Your task to perform on an android device: create a new album in the google photos Image 0: 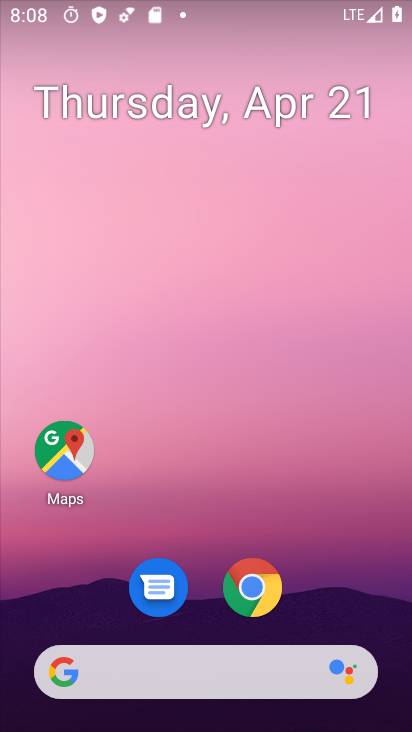
Step 0: click (70, 442)
Your task to perform on an android device: create a new album in the google photos Image 1: 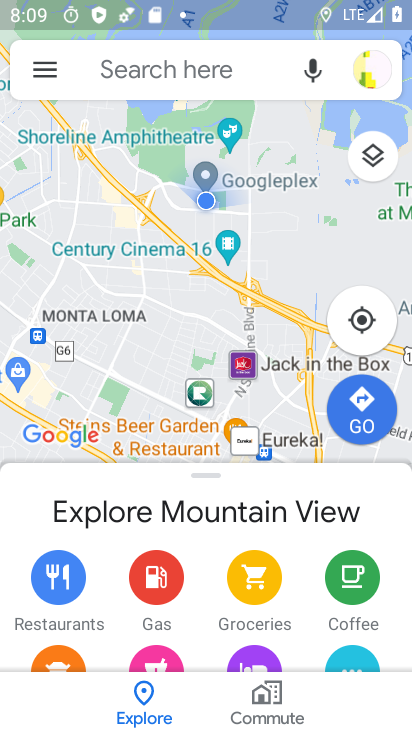
Step 1: press home button
Your task to perform on an android device: create a new album in the google photos Image 2: 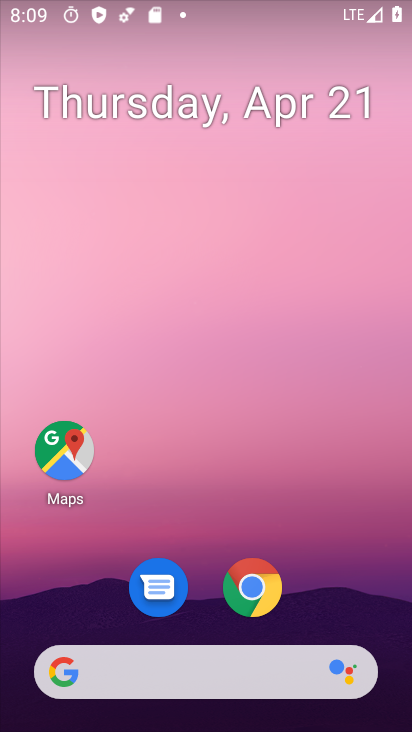
Step 2: click (382, 183)
Your task to perform on an android device: create a new album in the google photos Image 3: 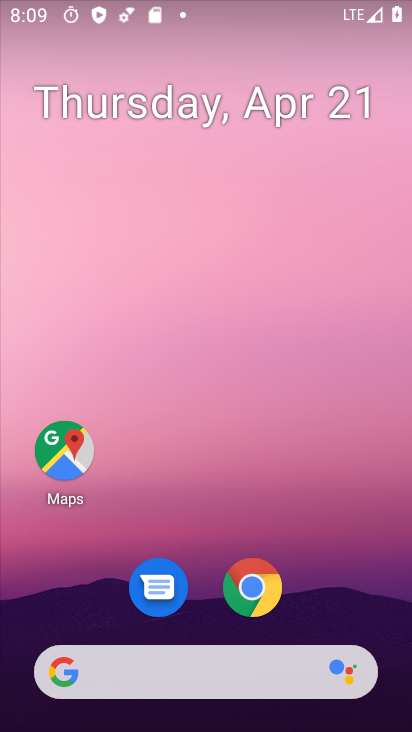
Step 3: drag from (389, 501) to (389, 212)
Your task to perform on an android device: create a new album in the google photos Image 4: 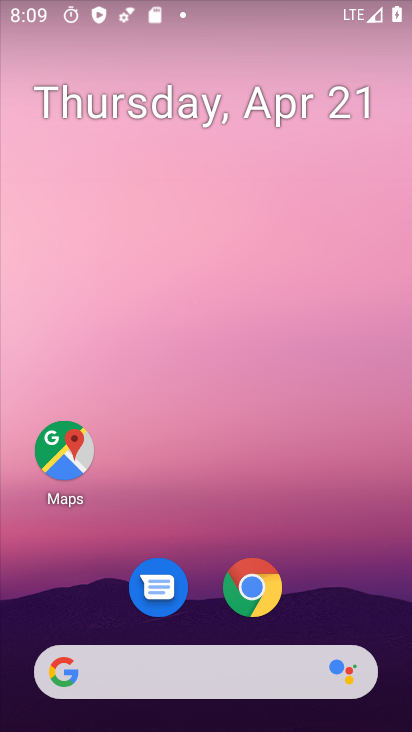
Step 4: drag from (393, 550) to (350, 196)
Your task to perform on an android device: create a new album in the google photos Image 5: 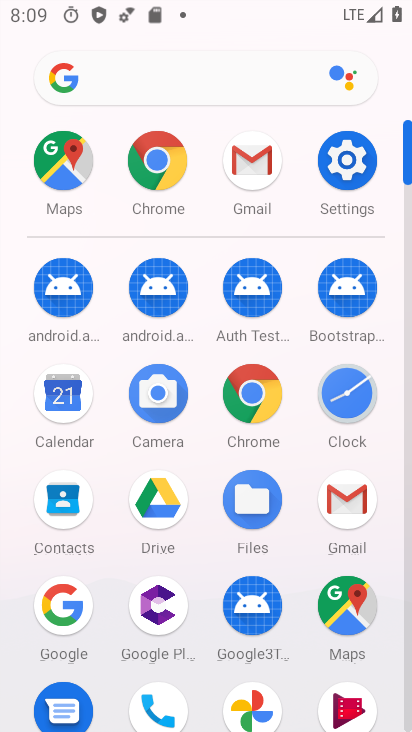
Step 5: click (244, 697)
Your task to perform on an android device: create a new album in the google photos Image 6: 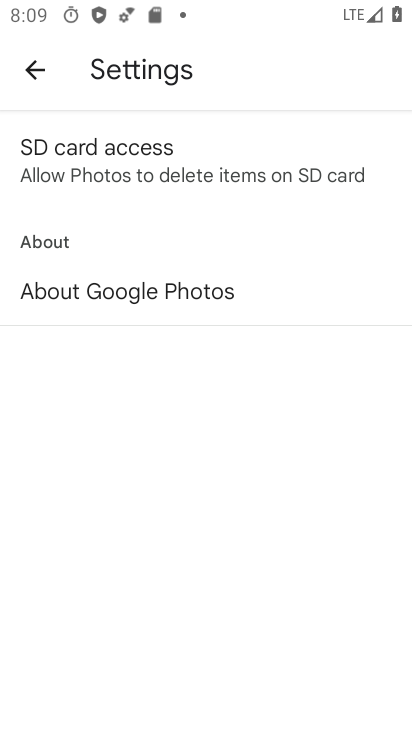
Step 6: click (36, 67)
Your task to perform on an android device: create a new album in the google photos Image 7: 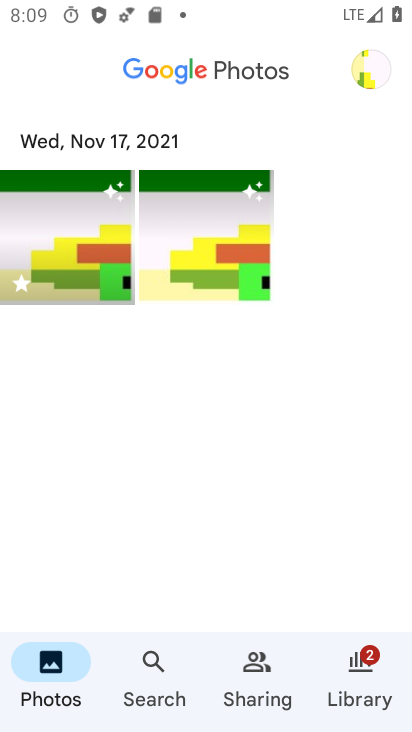
Step 7: click (369, 665)
Your task to perform on an android device: create a new album in the google photos Image 8: 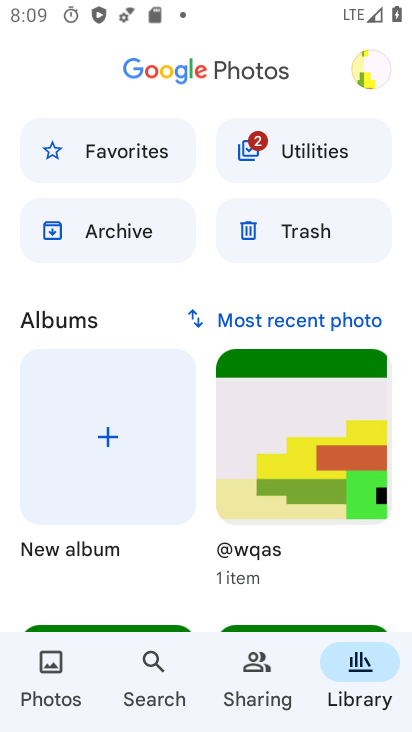
Step 8: click (99, 431)
Your task to perform on an android device: create a new album in the google photos Image 9: 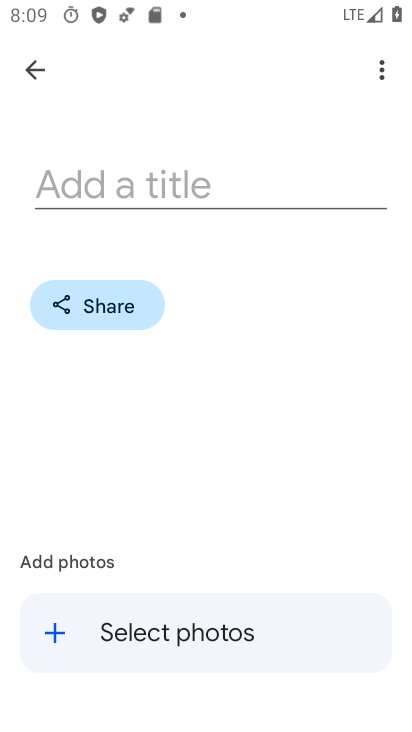
Step 9: click (128, 167)
Your task to perform on an android device: create a new album in the google photos Image 10: 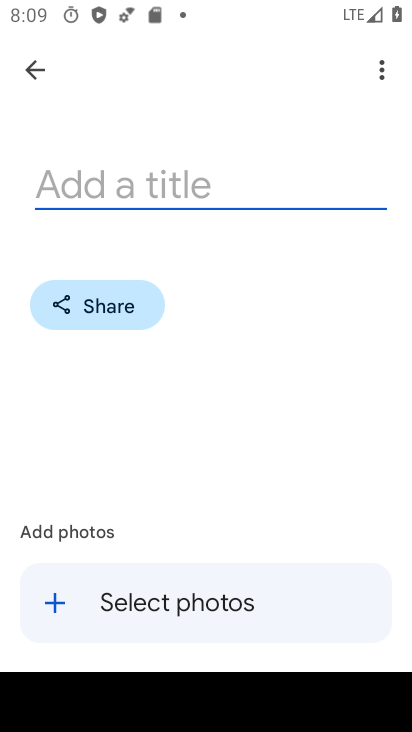
Step 10: type "dfhhhggf"
Your task to perform on an android device: create a new album in the google photos Image 11: 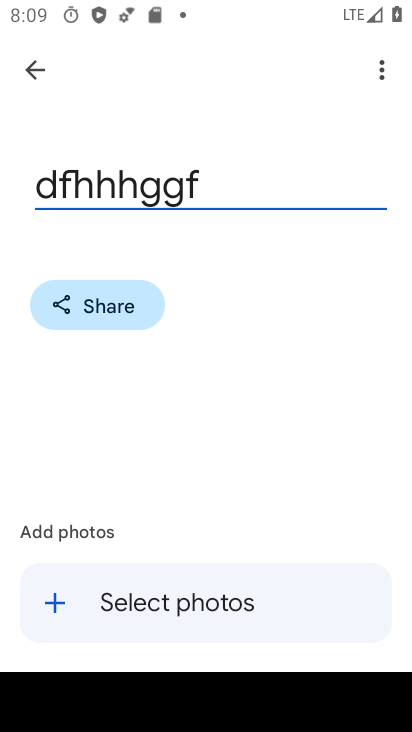
Step 11: click (118, 610)
Your task to perform on an android device: create a new album in the google photos Image 12: 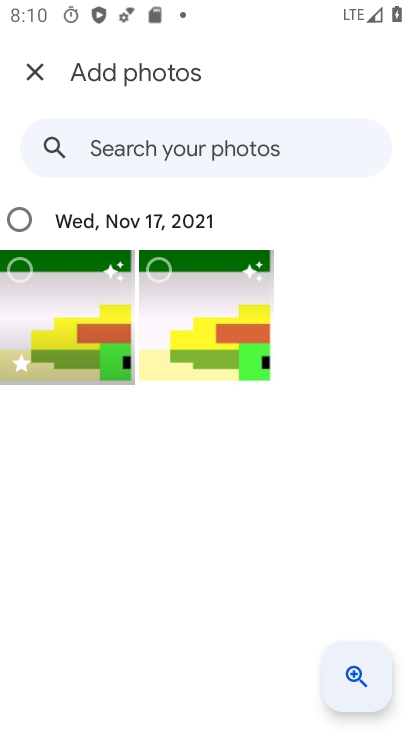
Step 12: click (21, 268)
Your task to perform on an android device: create a new album in the google photos Image 13: 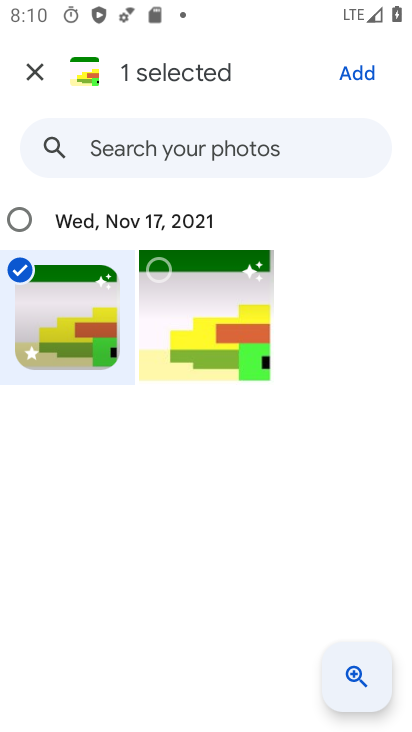
Step 13: click (162, 270)
Your task to perform on an android device: create a new album in the google photos Image 14: 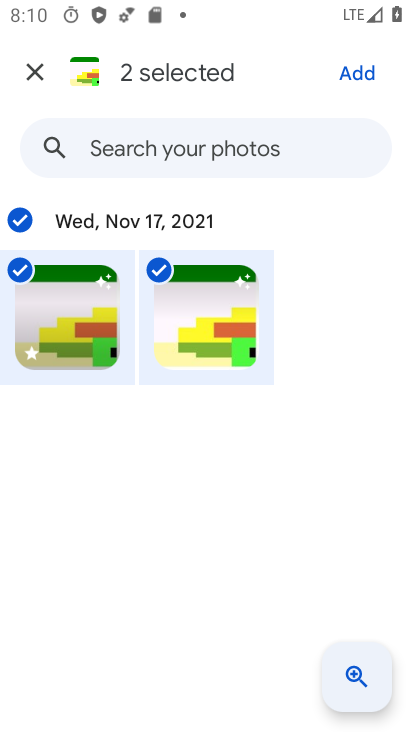
Step 14: click (363, 73)
Your task to perform on an android device: create a new album in the google photos Image 15: 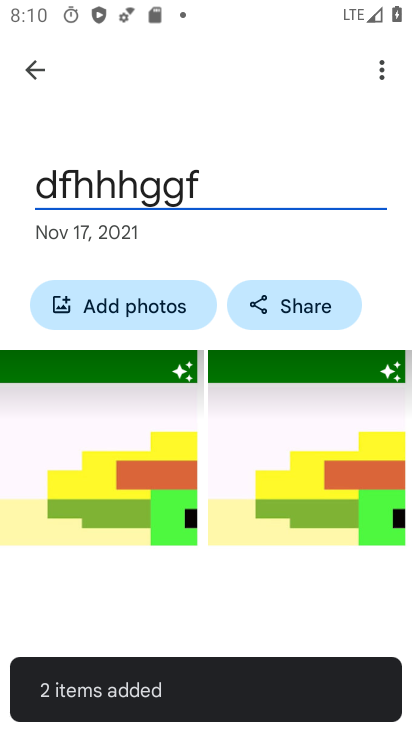
Step 15: click (154, 689)
Your task to perform on an android device: create a new album in the google photos Image 16: 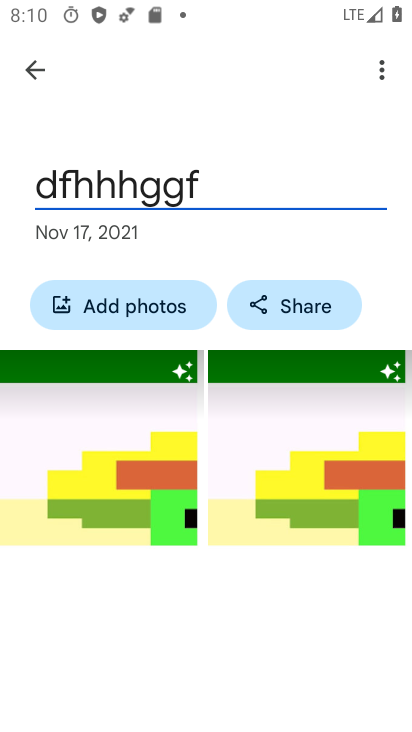
Step 16: click (380, 60)
Your task to perform on an android device: create a new album in the google photos Image 17: 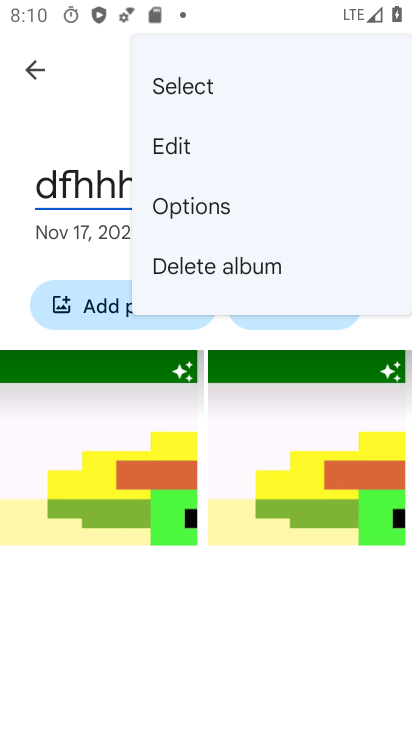
Step 17: click (175, 199)
Your task to perform on an android device: create a new album in the google photos Image 18: 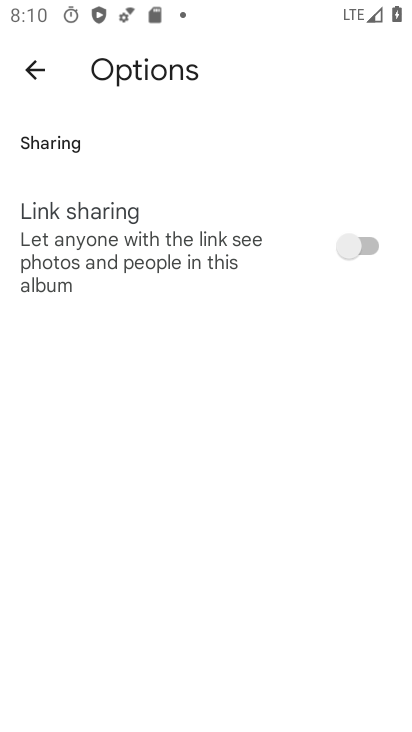
Step 18: click (23, 71)
Your task to perform on an android device: create a new album in the google photos Image 19: 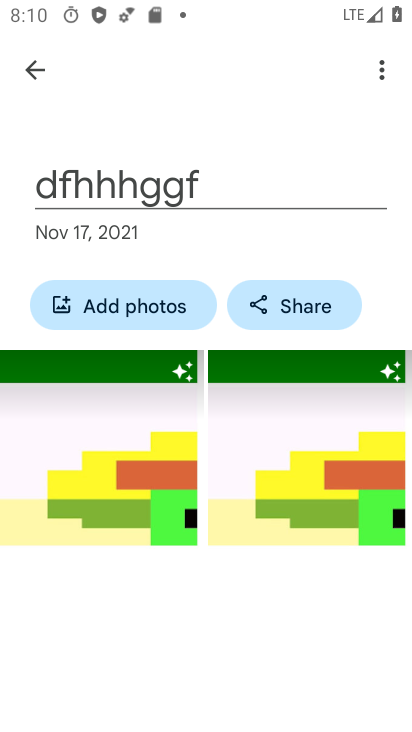
Step 19: click (25, 62)
Your task to perform on an android device: create a new album in the google photos Image 20: 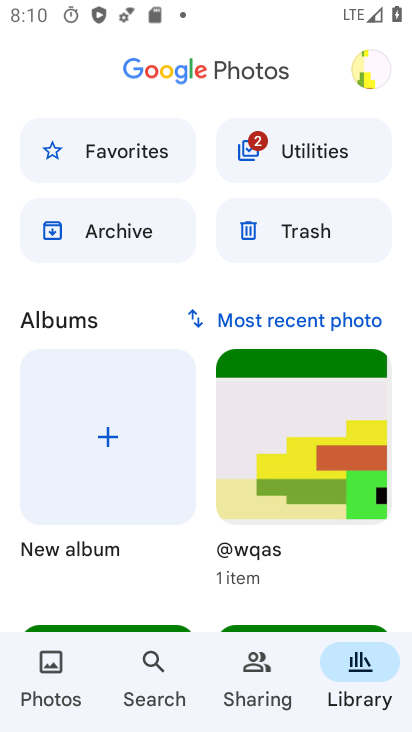
Step 20: task complete